Your task to perform on an android device: Go to accessibility settings Image 0: 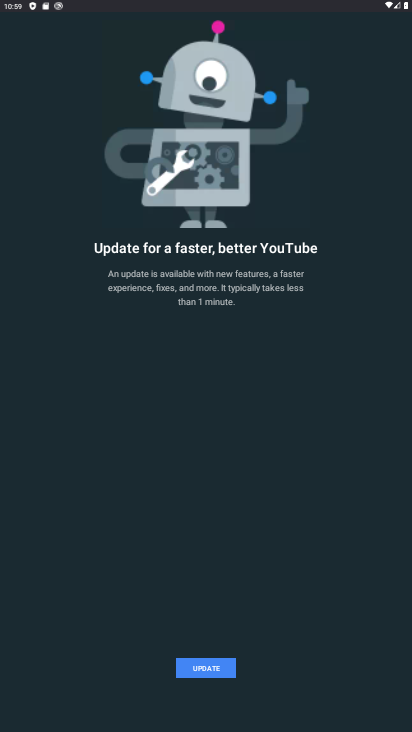
Step 0: press home button
Your task to perform on an android device: Go to accessibility settings Image 1: 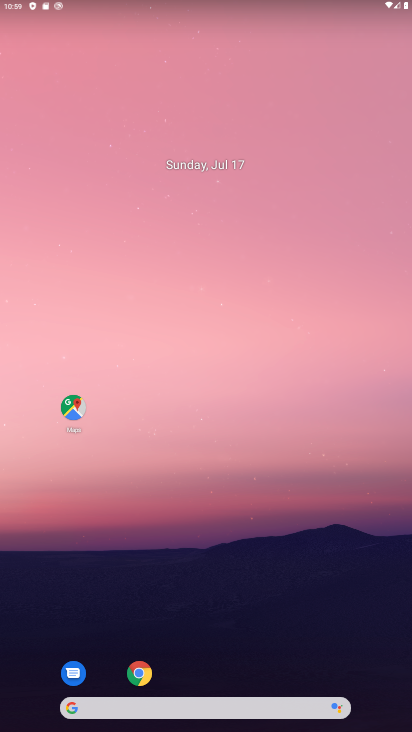
Step 1: drag from (265, 588) to (202, 130)
Your task to perform on an android device: Go to accessibility settings Image 2: 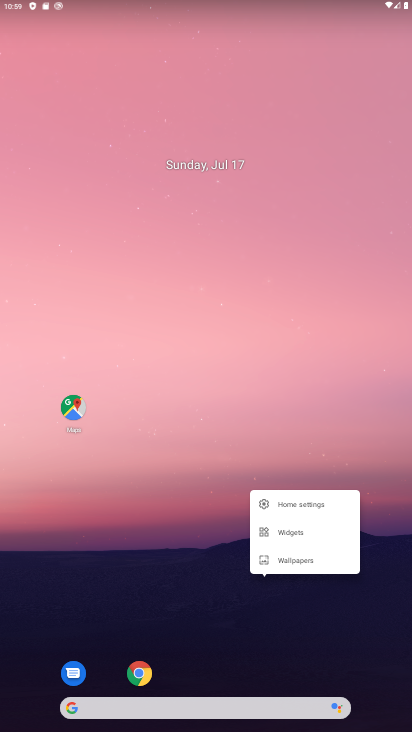
Step 2: click (163, 425)
Your task to perform on an android device: Go to accessibility settings Image 3: 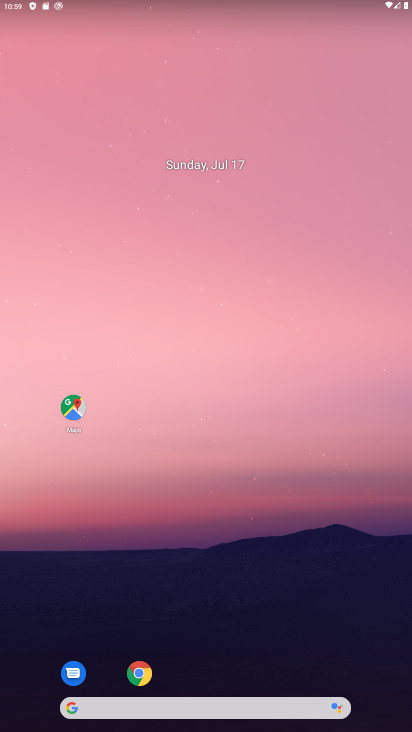
Step 3: drag from (233, 599) to (187, 114)
Your task to perform on an android device: Go to accessibility settings Image 4: 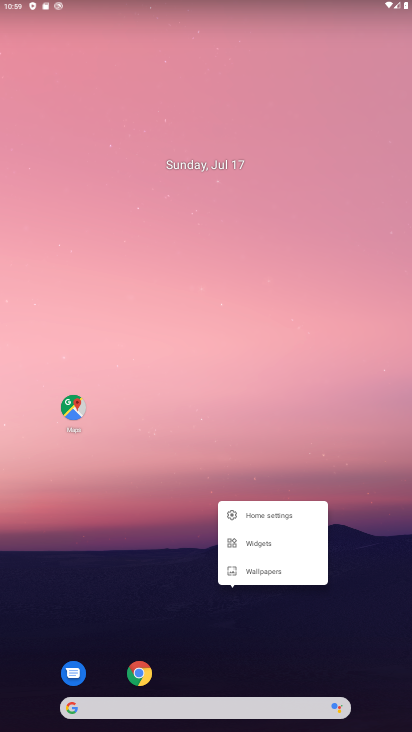
Step 4: click (131, 503)
Your task to perform on an android device: Go to accessibility settings Image 5: 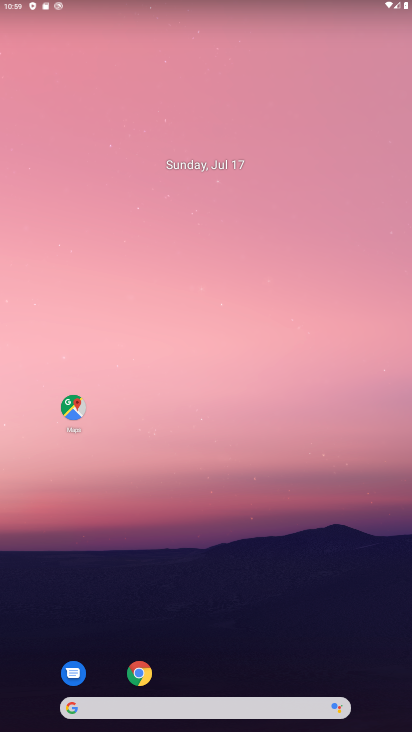
Step 5: drag from (239, 576) to (127, 47)
Your task to perform on an android device: Go to accessibility settings Image 6: 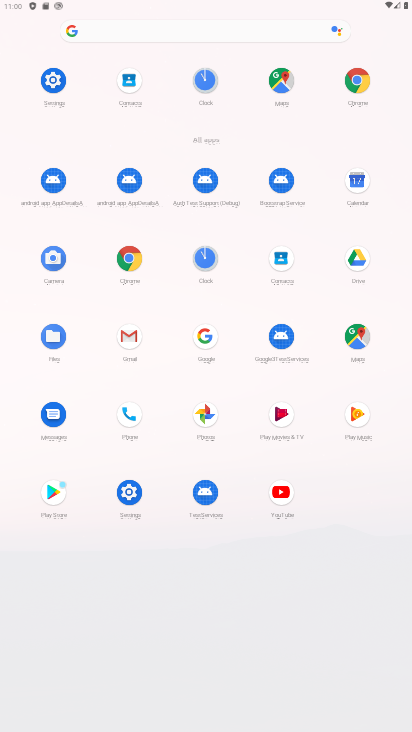
Step 6: click (132, 482)
Your task to perform on an android device: Go to accessibility settings Image 7: 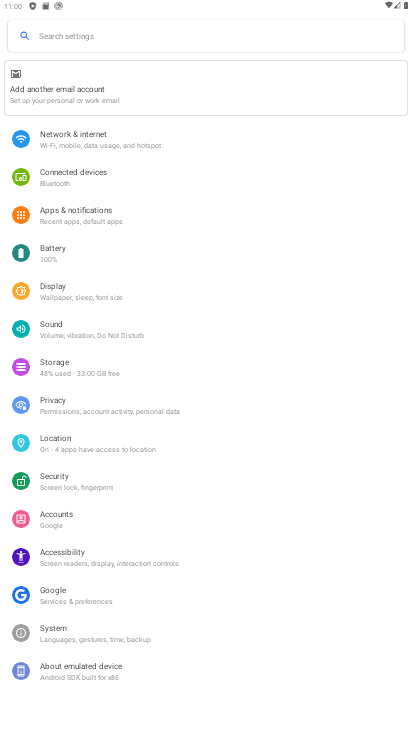
Step 7: click (59, 550)
Your task to perform on an android device: Go to accessibility settings Image 8: 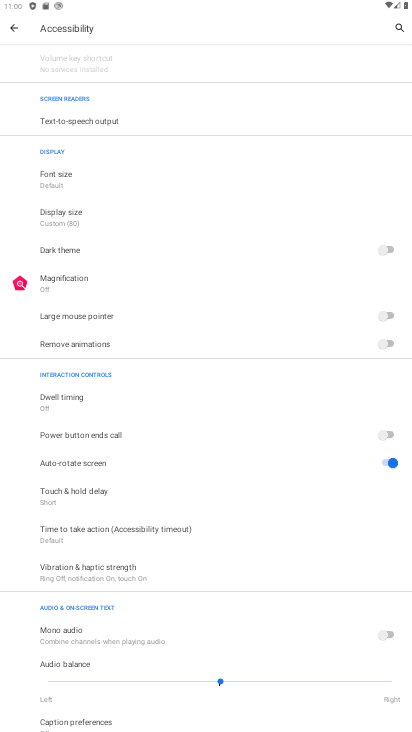
Step 8: task complete